Your task to perform on an android device: What's the weather today? Image 0: 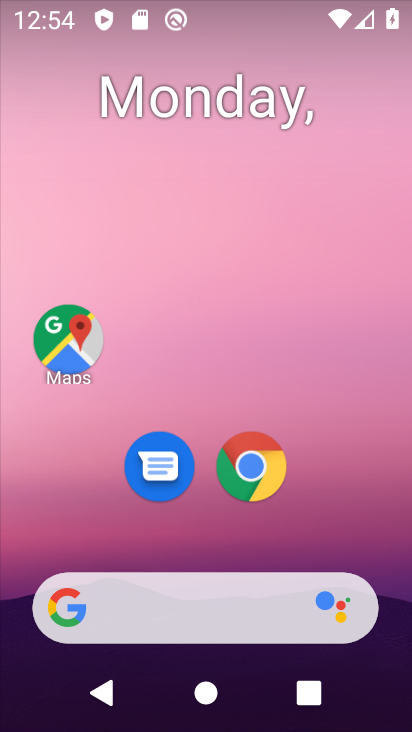
Step 0: drag from (224, 508) to (222, 459)
Your task to perform on an android device: What's the weather today? Image 1: 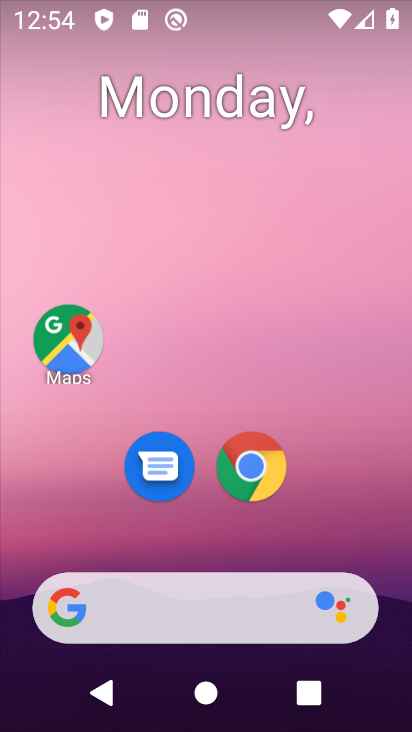
Step 1: click (170, 611)
Your task to perform on an android device: What's the weather today? Image 2: 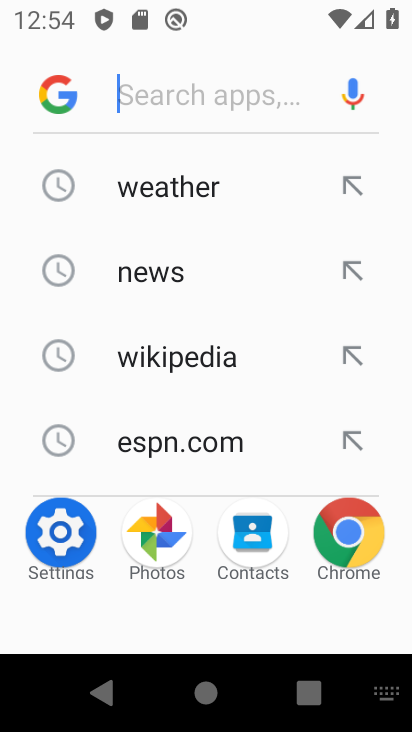
Step 2: click (146, 202)
Your task to perform on an android device: What's the weather today? Image 3: 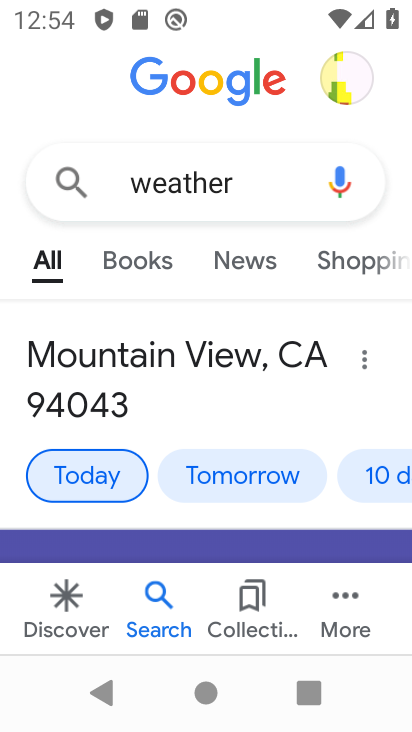
Step 3: task complete